Your task to perform on an android device: Is it going to rain this weekend? Image 0: 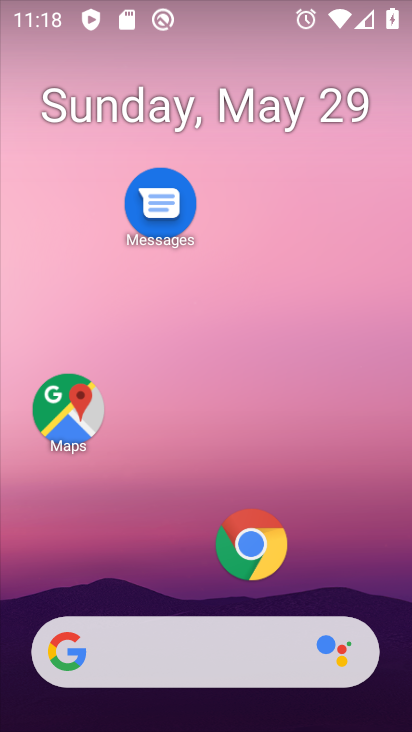
Step 0: drag from (323, 455) to (322, 45)
Your task to perform on an android device: Is it going to rain this weekend? Image 1: 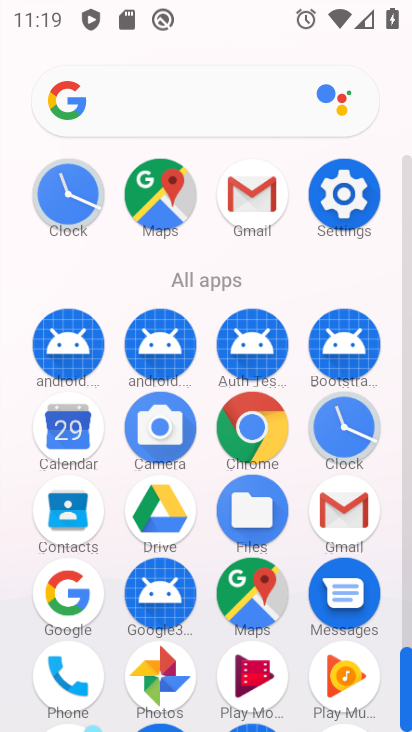
Step 1: press back button
Your task to perform on an android device: Is it going to rain this weekend? Image 2: 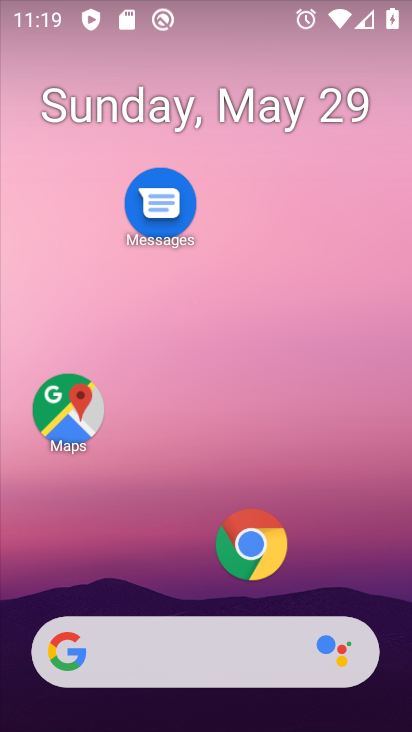
Step 2: drag from (13, 280) to (363, 298)
Your task to perform on an android device: Is it going to rain this weekend? Image 3: 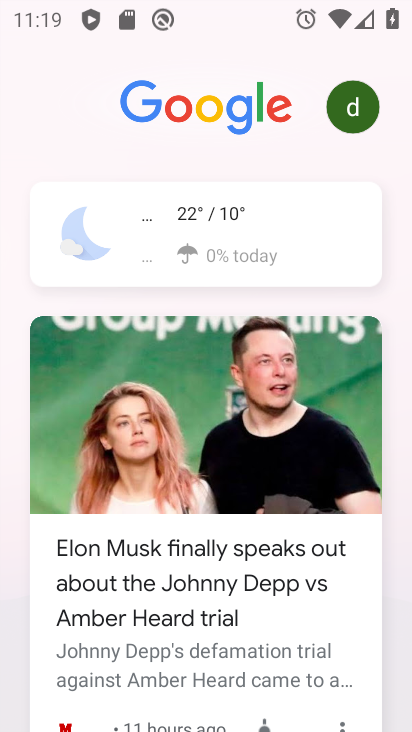
Step 3: click (221, 217)
Your task to perform on an android device: Is it going to rain this weekend? Image 4: 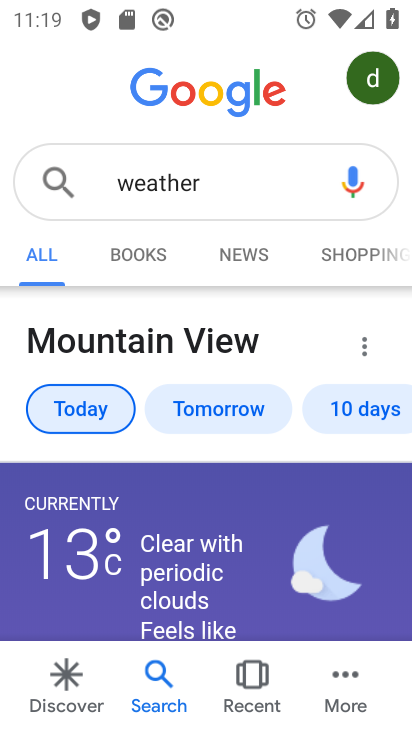
Step 4: click (380, 410)
Your task to perform on an android device: Is it going to rain this weekend? Image 5: 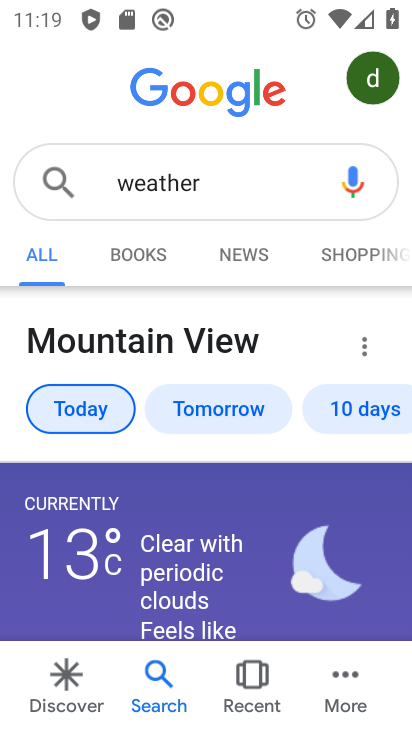
Step 5: click (344, 410)
Your task to perform on an android device: Is it going to rain this weekend? Image 6: 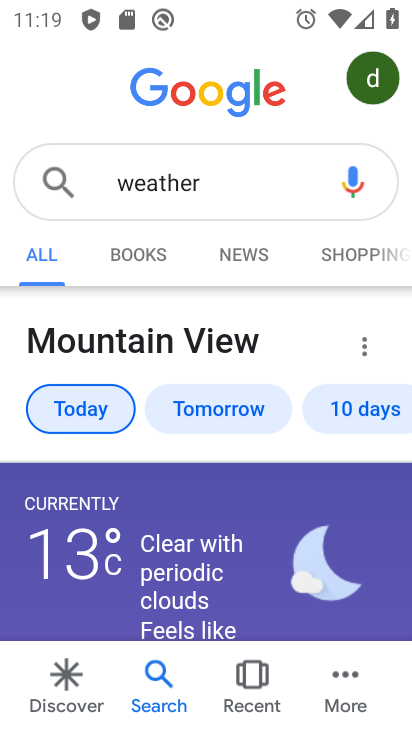
Step 6: click (367, 411)
Your task to perform on an android device: Is it going to rain this weekend? Image 7: 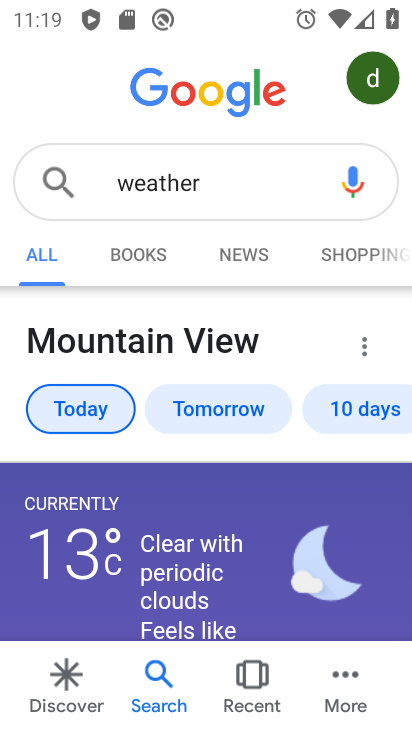
Step 7: drag from (263, 593) to (226, 244)
Your task to perform on an android device: Is it going to rain this weekend? Image 8: 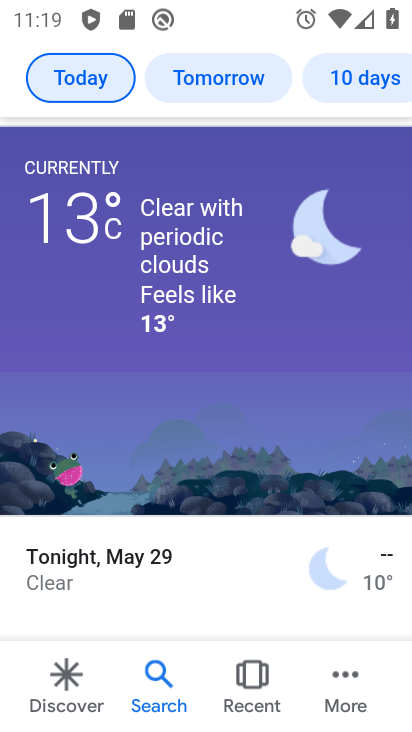
Step 8: drag from (241, 284) to (244, 532)
Your task to perform on an android device: Is it going to rain this weekend? Image 9: 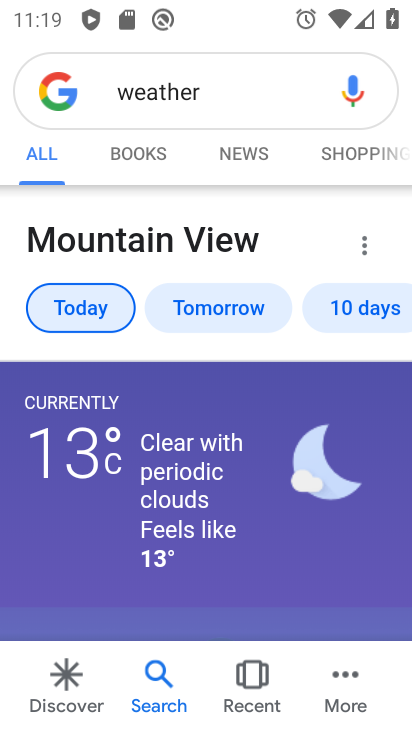
Step 9: click (371, 304)
Your task to perform on an android device: Is it going to rain this weekend? Image 10: 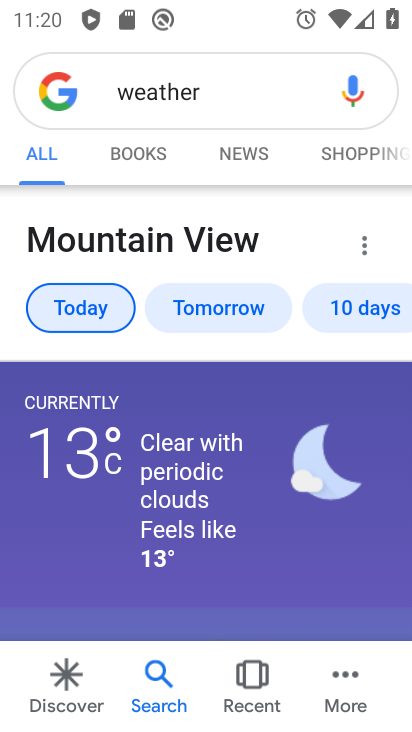
Step 10: click (358, 319)
Your task to perform on an android device: Is it going to rain this weekend? Image 11: 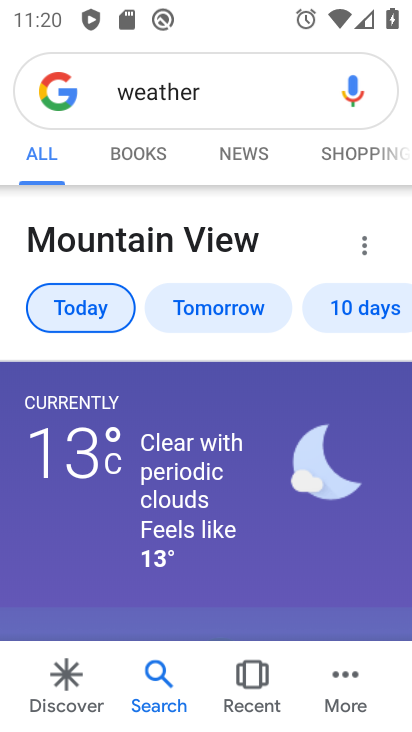
Step 11: drag from (253, 516) to (258, 227)
Your task to perform on an android device: Is it going to rain this weekend? Image 12: 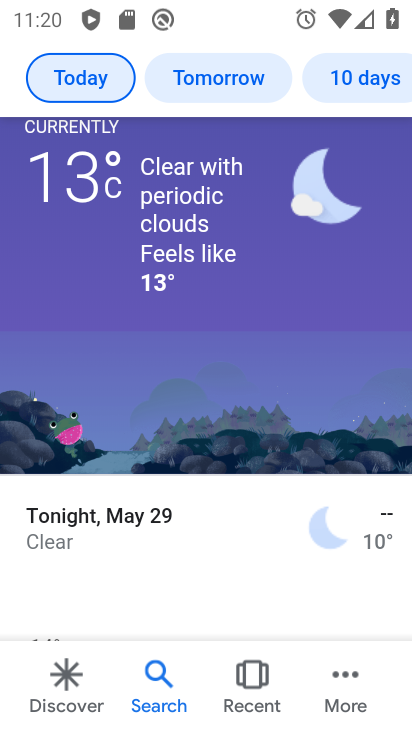
Step 12: drag from (226, 534) to (236, 176)
Your task to perform on an android device: Is it going to rain this weekend? Image 13: 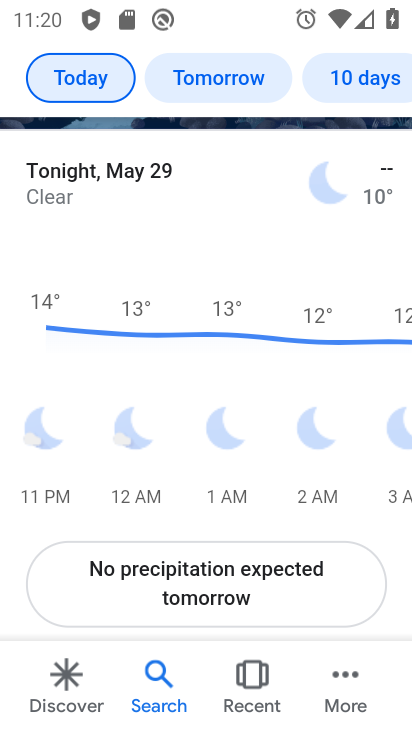
Step 13: click (308, 427)
Your task to perform on an android device: Is it going to rain this weekend? Image 14: 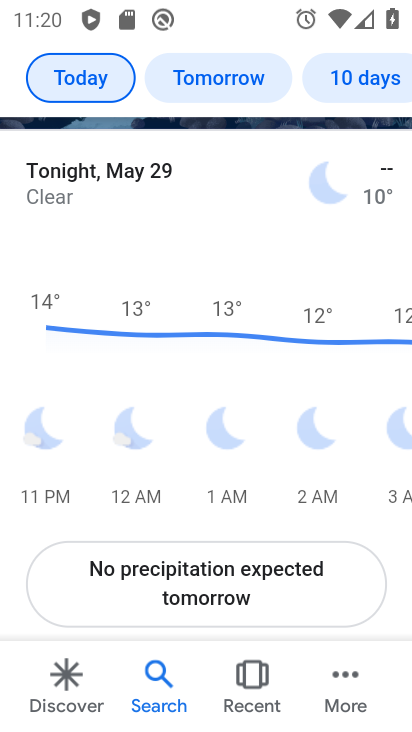
Step 14: task complete